Your task to perform on an android device: allow cookies in the chrome app Image 0: 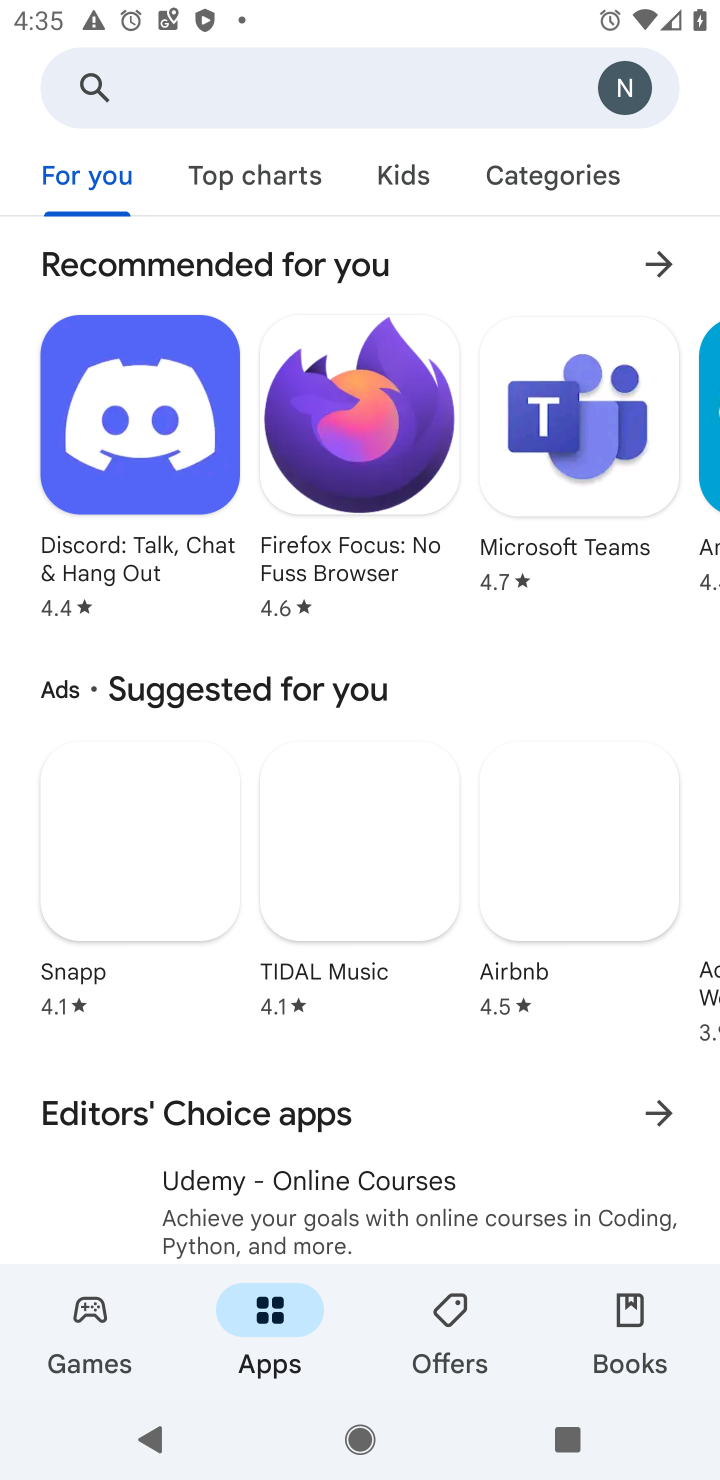
Step 0: press home button
Your task to perform on an android device: allow cookies in the chrome app Image 1: 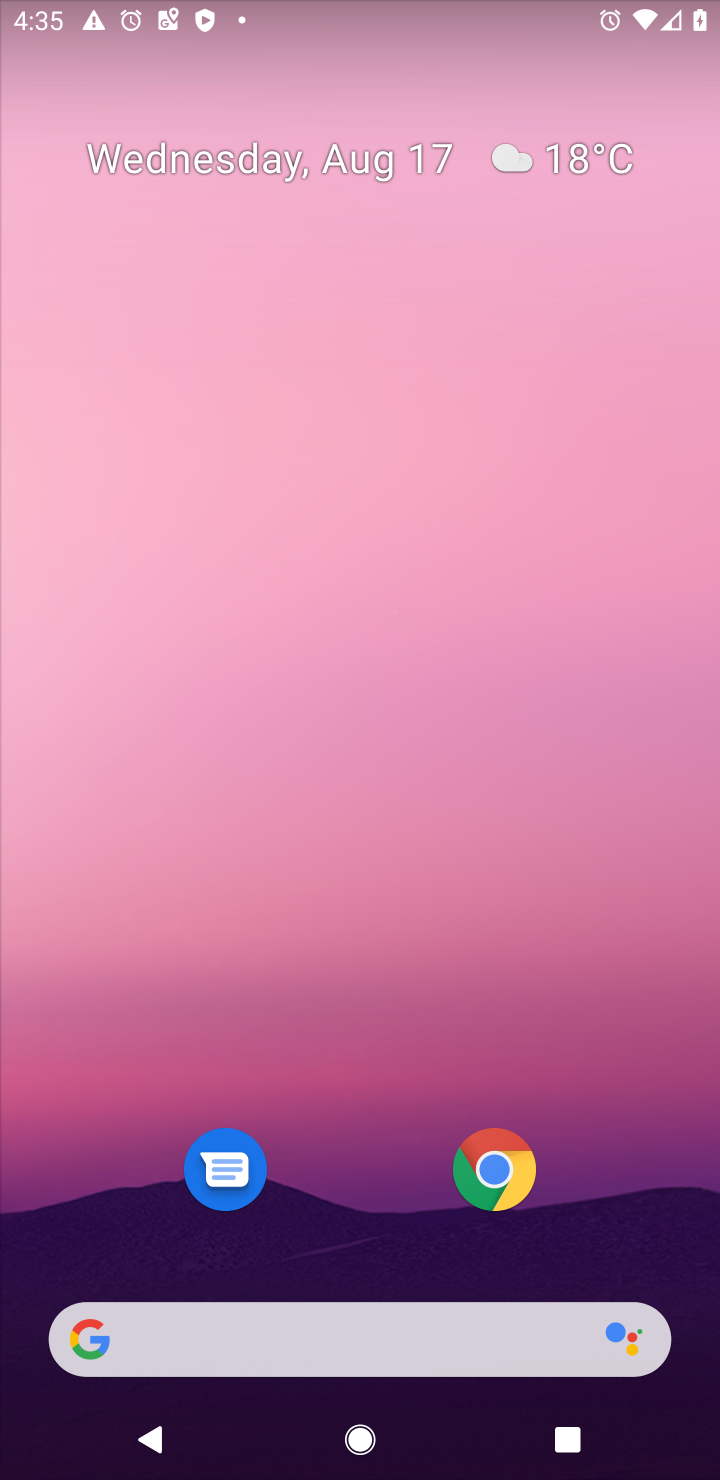
Step 1: drag from (339, 1090) to (583, 6)
Your task to perform on an android device: allow cookies in the chrome app Image 2: 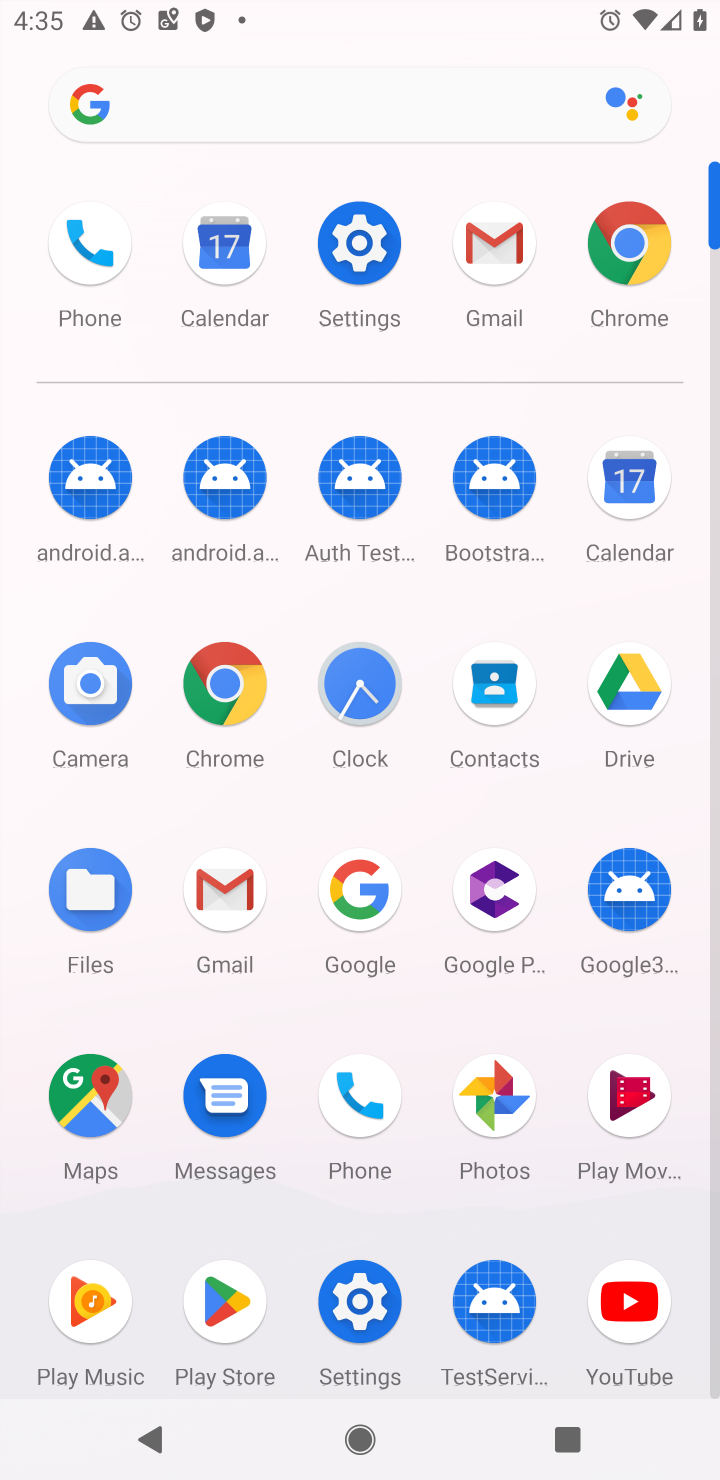
Step 2: click (649, 255)
Your task to perform on an android device: allow cookies in the chrome app Image 3: 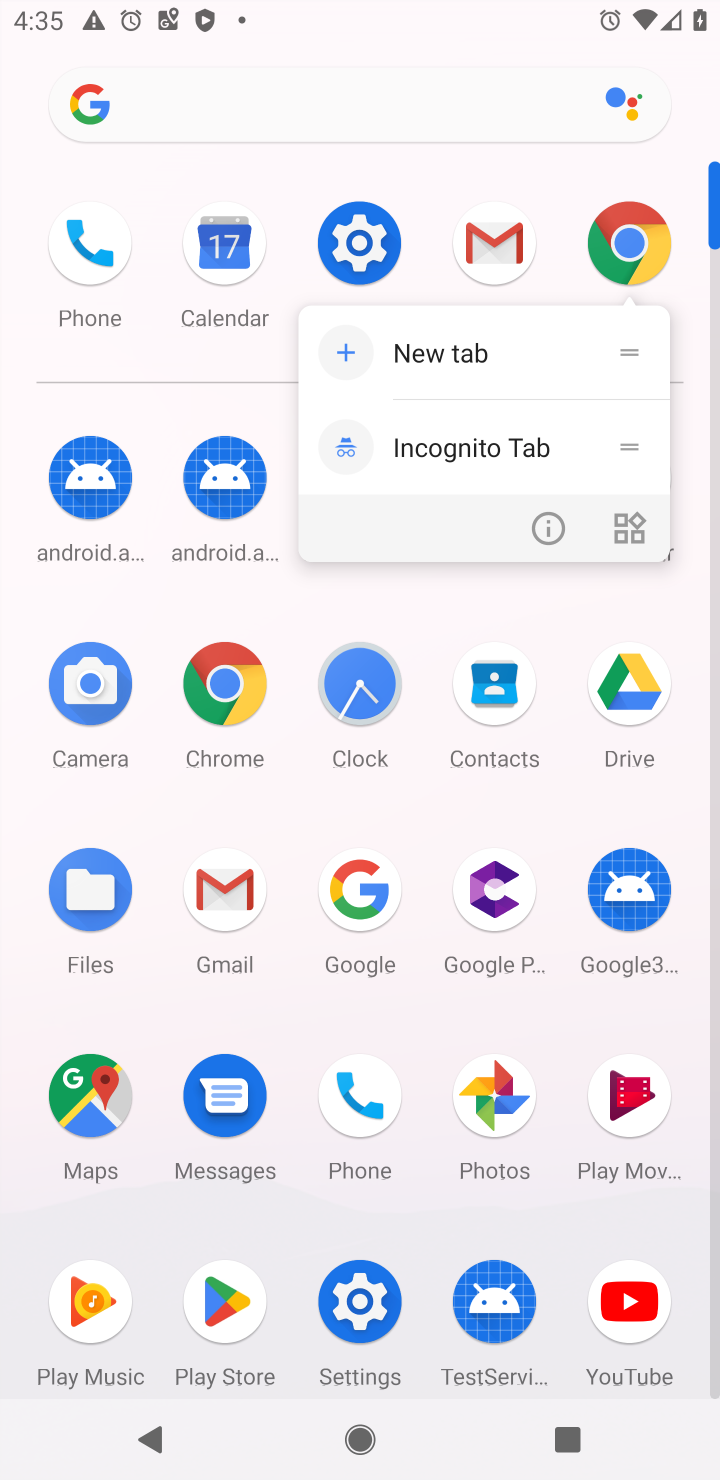
Step 3: click (224, 681)
Your task to perform on an android device: allow cookies in the chrome app Image 4: 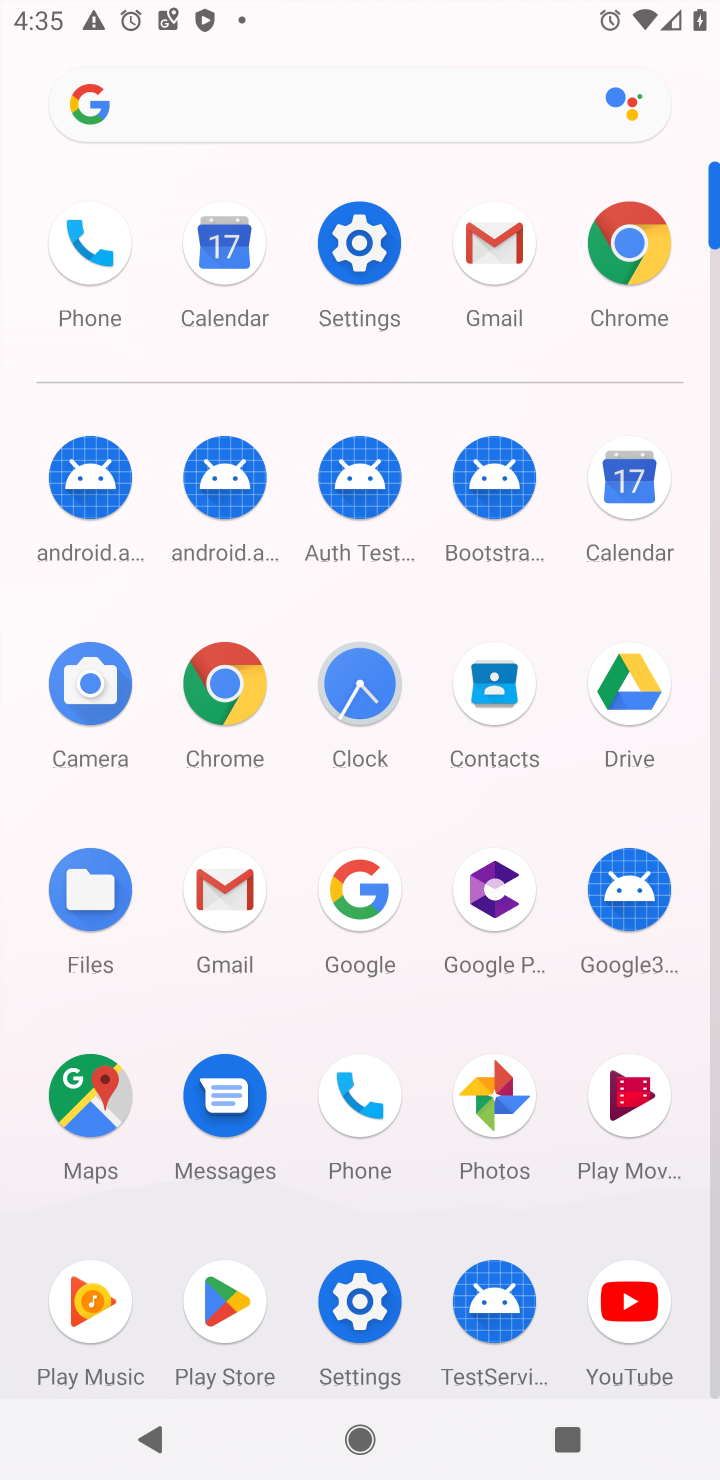
Step 4: click (230, 680)
Your task to perform on an android device: allow cookies in the chrome app Image 5: 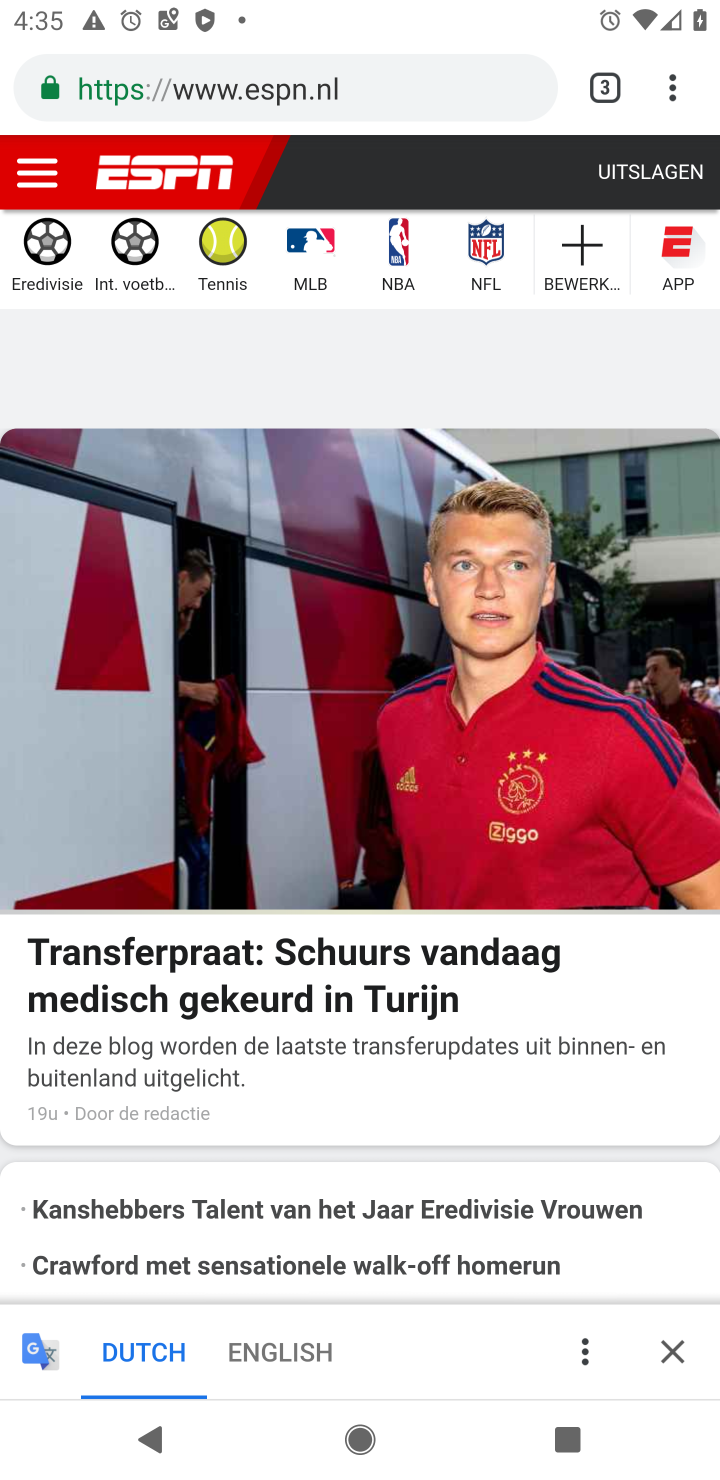
Step 5: drag from (672, 70) to (379, 1165)
Your task to perform on an android device: allow cookies in the chrome app Image 6: 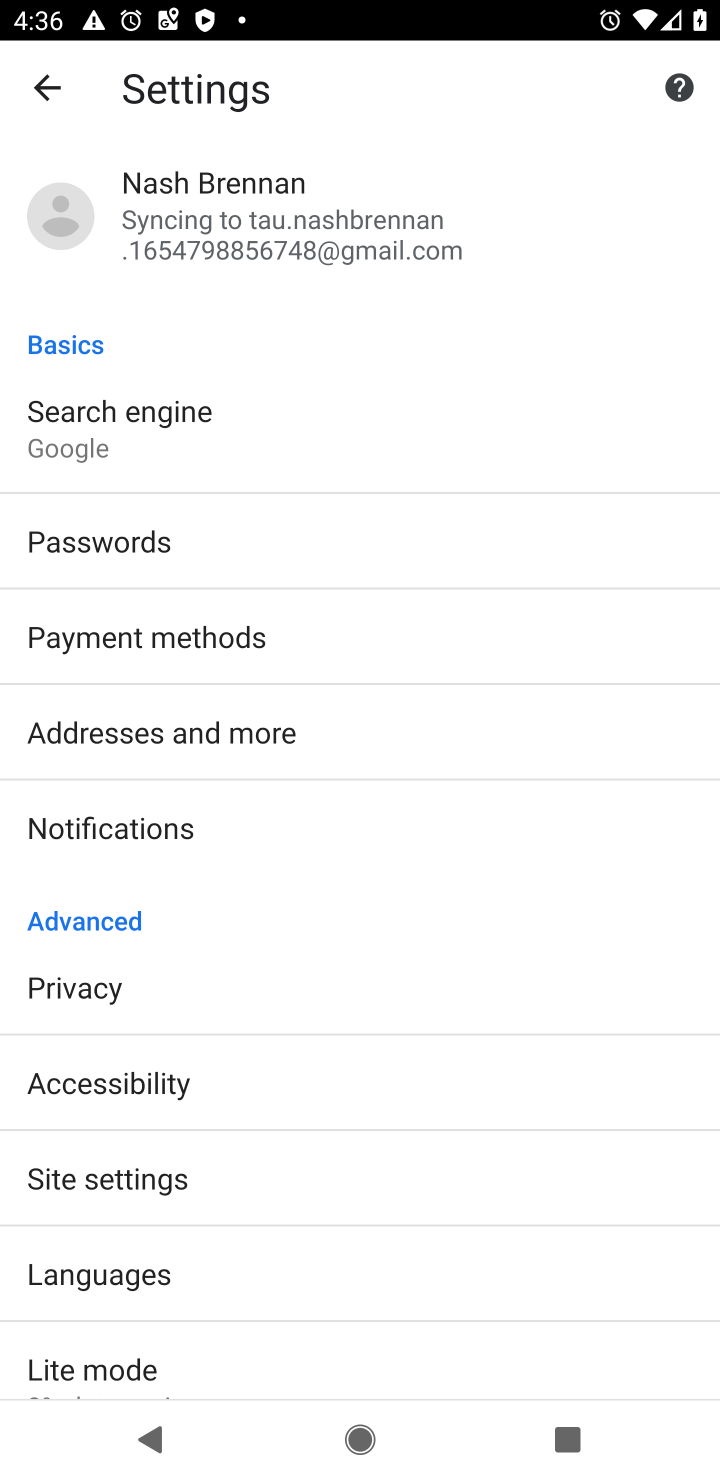
Step 6: drag from (348, 1011) to (393, 559)
Your task to perform on an android device: allow cookies in the chrome app Image 7: 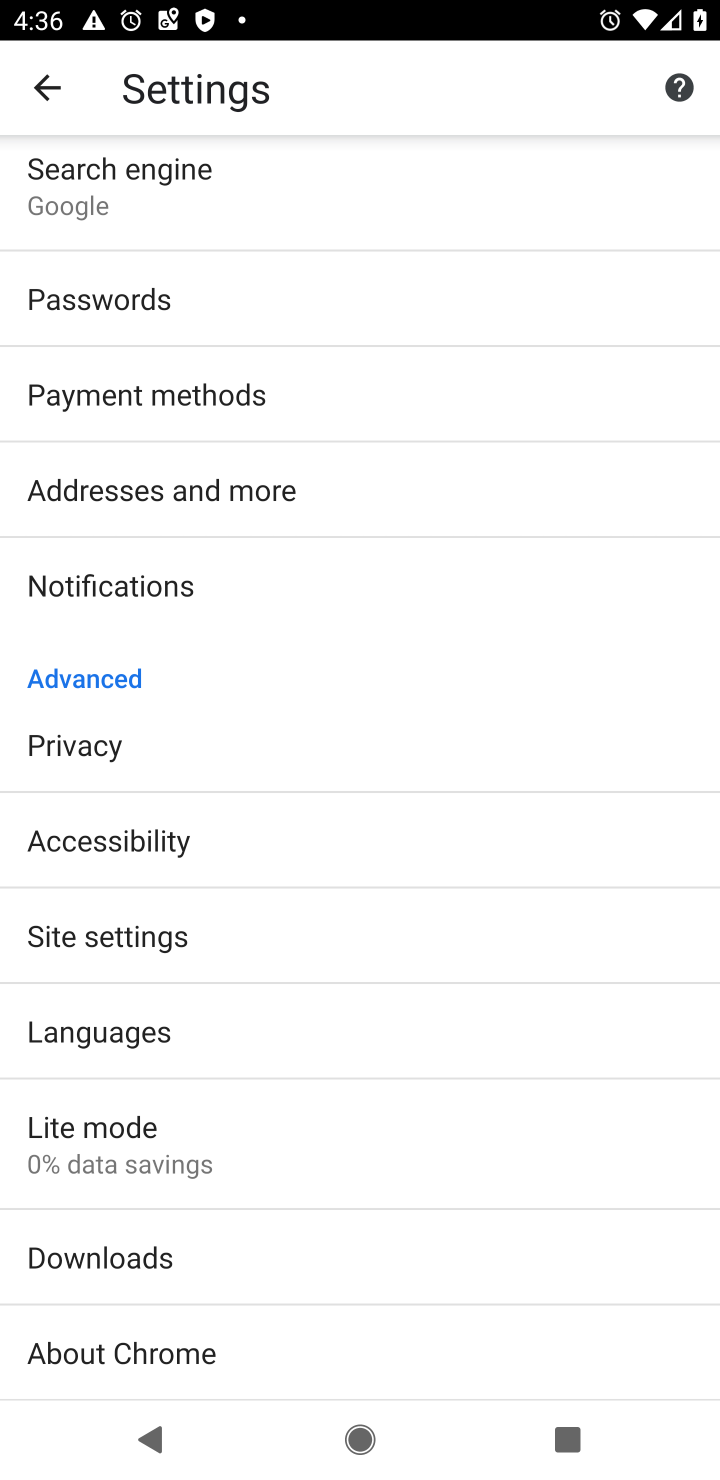
Step 7: click (205, 933)
Your task to perform on an android device: allow cookies in the chrome app Image 8: 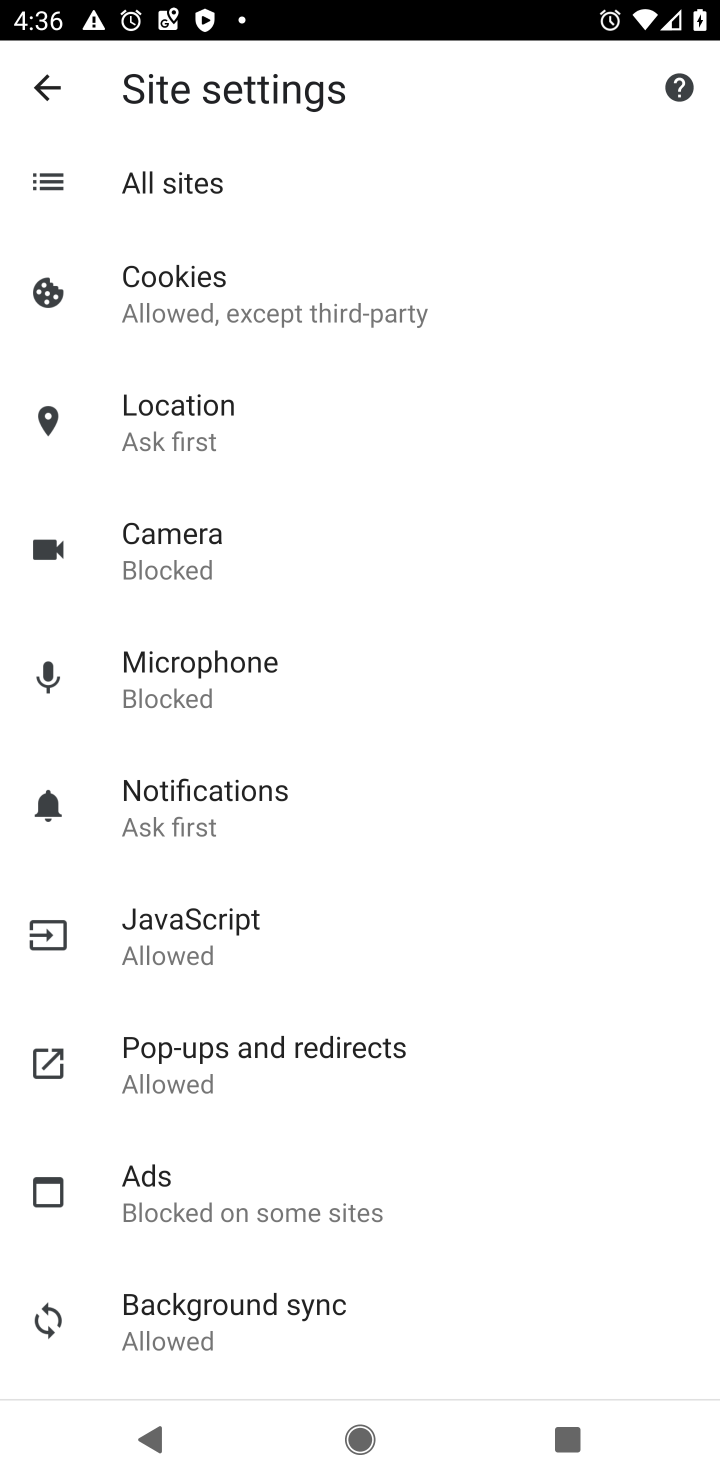
Step 8: click (329, 293)
Your task to perform on an android device: allow cookies in the chrome app Image 9: 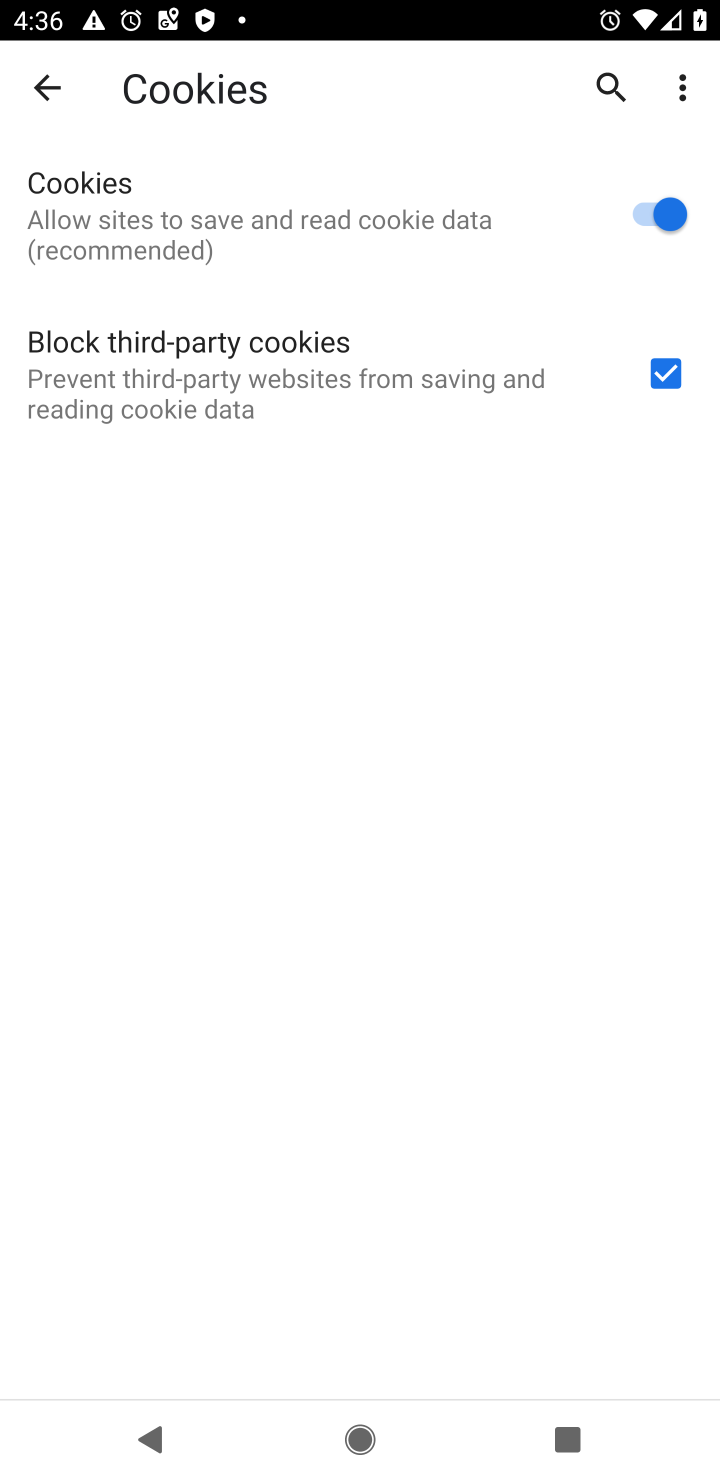
Step 9: task complete